Your task to perform on an android device: What is the speed of a skateboard? Image 0: 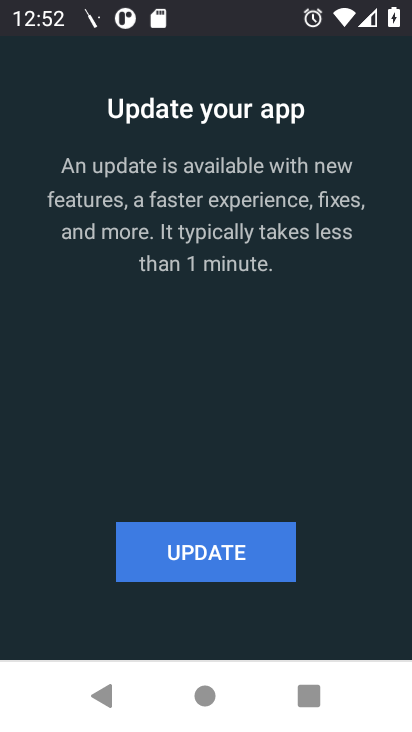
Step 0: press home button
Your task to perform on an android device: What is the speed of a skateboard? Image 1: 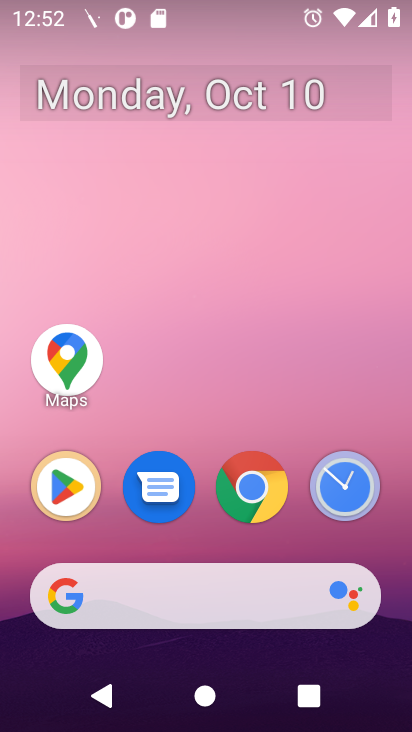
Step 1: click (262, 481)
Your task to perform on an android device: What is the speed of a skateboard? Image 2: 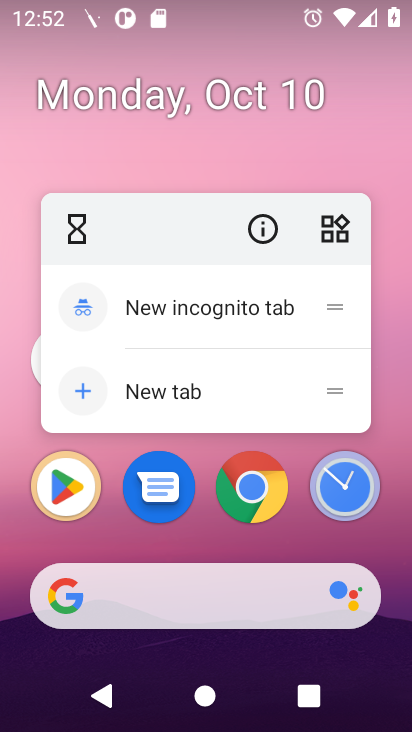
Step 2: click (254, 500)
Your task to perform on an android device: What is the speed of a skateboard? Image 3: 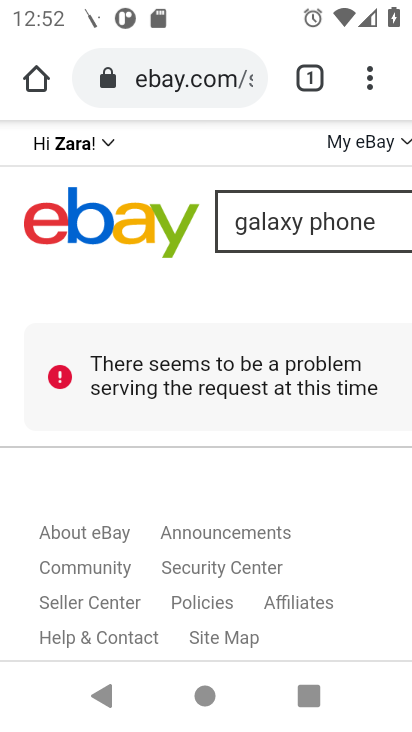
Step 3: click (157, 97)
Your task to perform on an android device: What is the speed of a skateboard? Image 4: 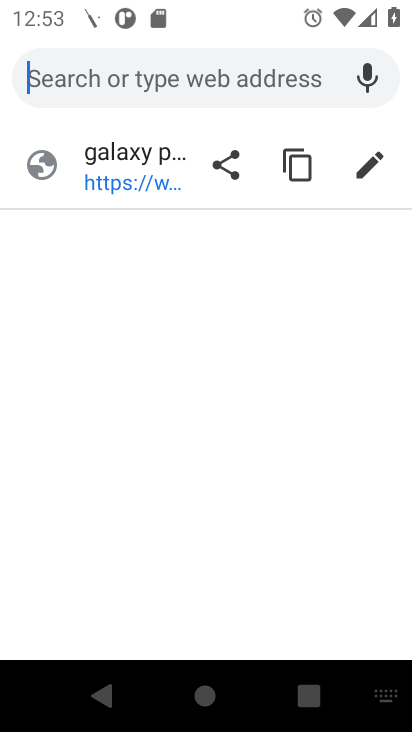
Step 4: type "speed of a skateboard"
Your task to perform on an android device: What is the speed of a skateboard? Image 5: 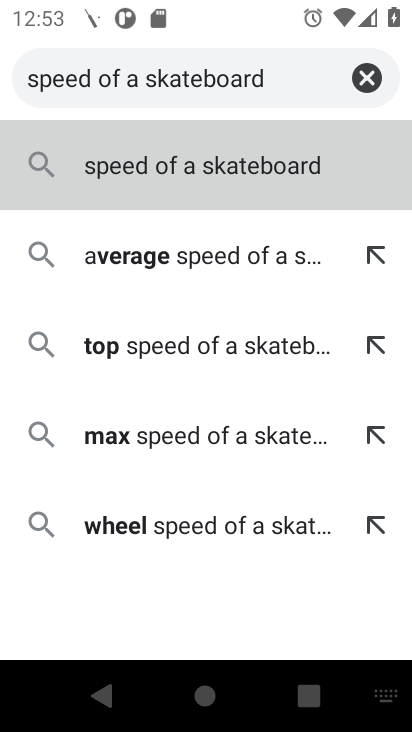
Step 5: press enter
Your task to perform on an android device: What is the speed of a skateboard? Image 6: 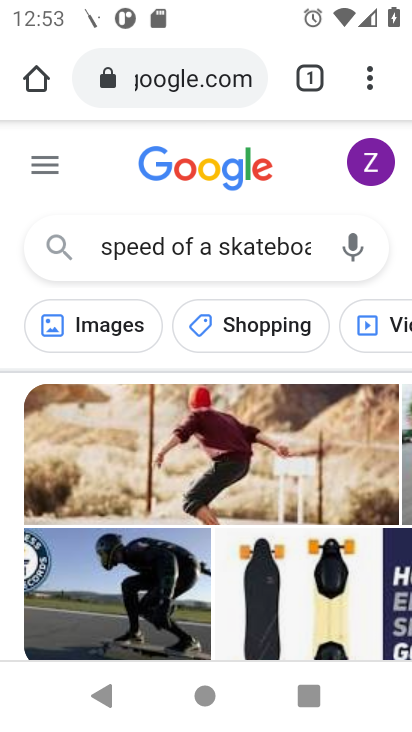
Step 6: task complete